Your task to perform on an android device: toggle show notifications on the lock screen Image 0: 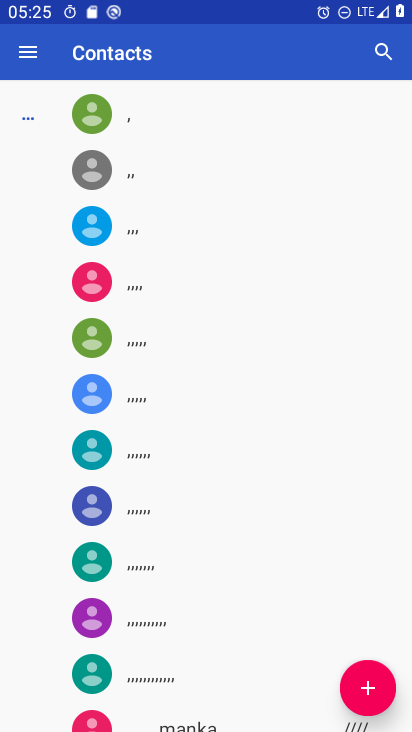
Step 0: press home button
Your task to perform on an android device: toggle show notifications on the lock screen Image 1: 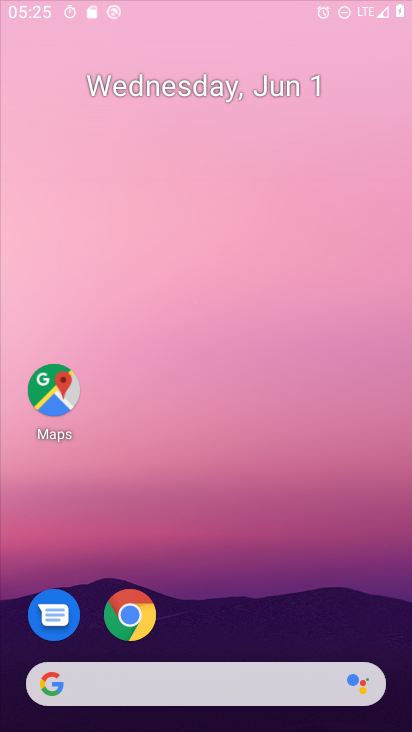
Step 1: drag from (268, 664) to (275, 7)
Your task to perform on an android device: toggle show notifications on the lock screen Image 2: 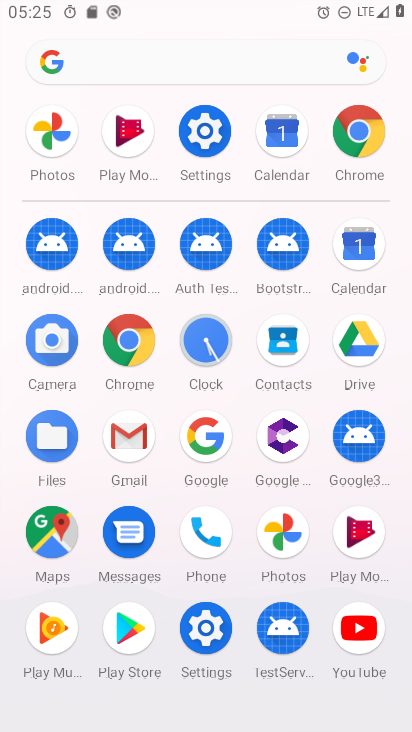
Step 2: click (184, 125)
Your task to perform on an android device: toggle show notifications on the lock screen Image 3: 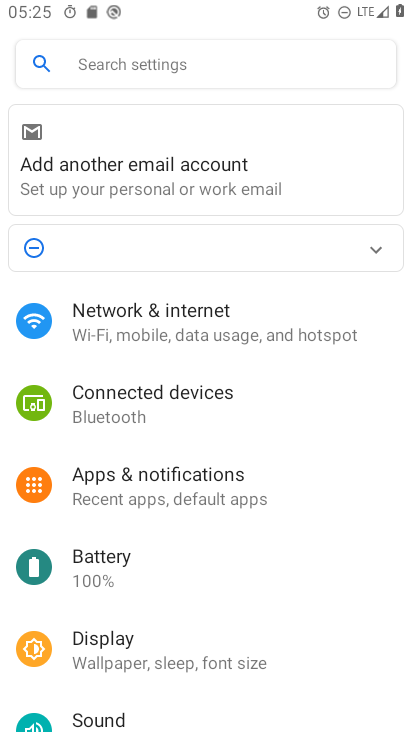
Step 3: click (182, 489)
Your task to perform on an android device: toggle show notifications on the lock screen Image 4: 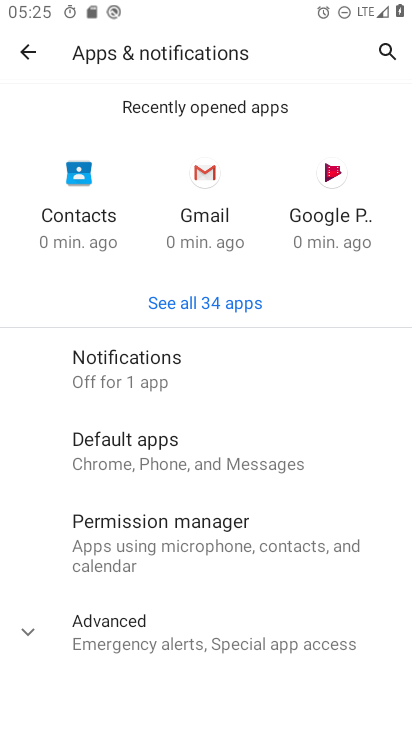
Step 4: click (188, 382)
Your task to perform on an android device: toggle show notifications on the lock screen Image 5: 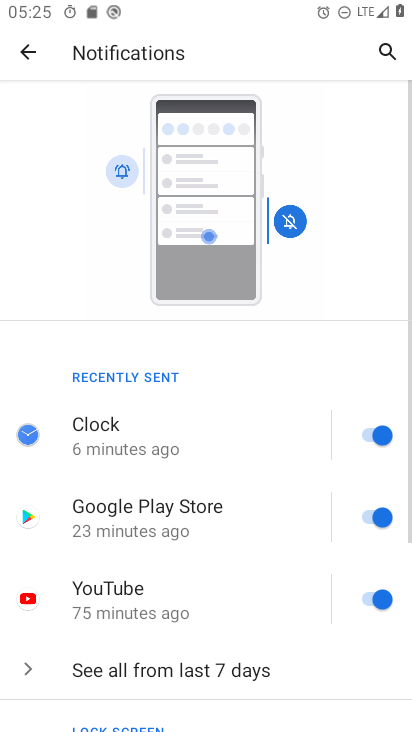
Step 5: drag from (224, 548) to (267, 58)
Your task to perform on an android device: toggle show notifications on the lock screen Image 6: 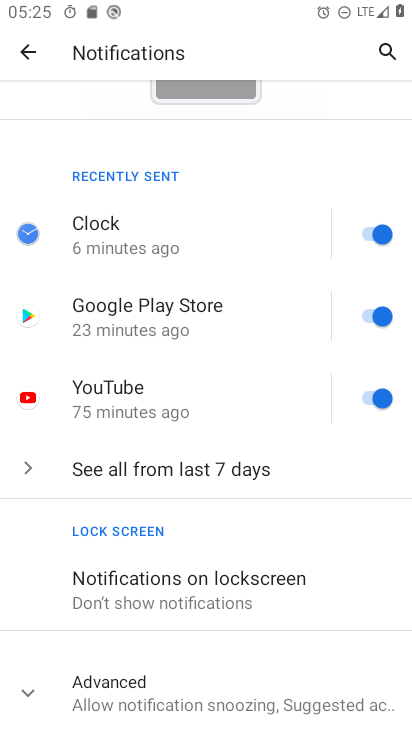
Step 6: click (245, 579)
Your task to perform on an android device: toggle show notifications on the lock screen Image 7: 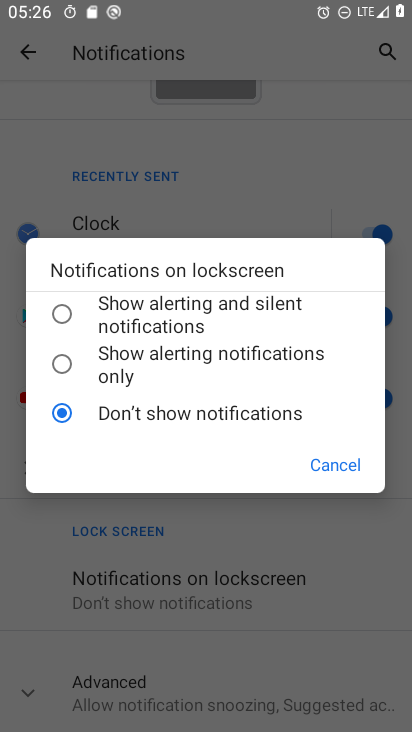
Step 7: click (61, 313)
Your task to perform on an android device: toggle show notifications on the lock screen Image 8: 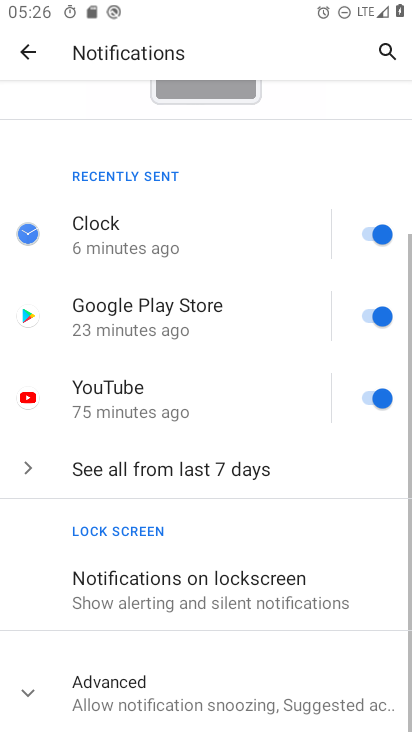
Step 8: task complete